Your task to perform on an android device: Go to Reddit.com Image 0: 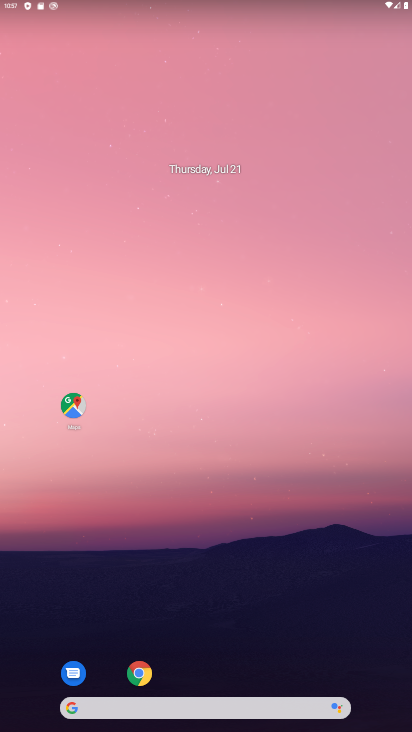
Step 0: drag from (336, 649) to (275, 122)
Your task to perform on an android device: Go to Reddit.com Image 1: 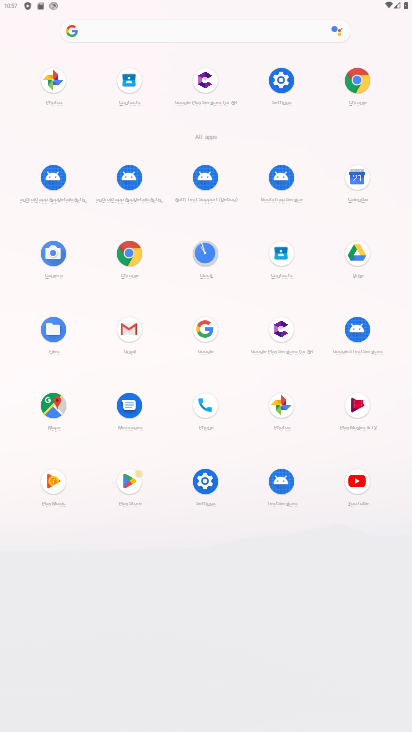
Step 1: click (359, 85)
Your task to perform on an android device: Go to Reddit.com Image 2: 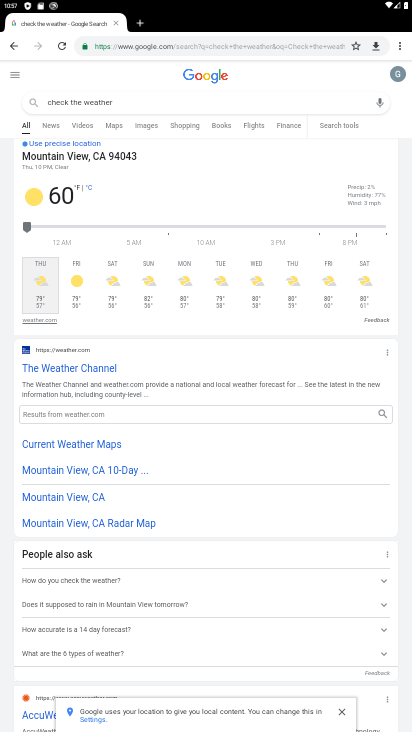
Step 2: click (281, 56)
Your task to perform on an android device: Go to Reddit.com Image 3: 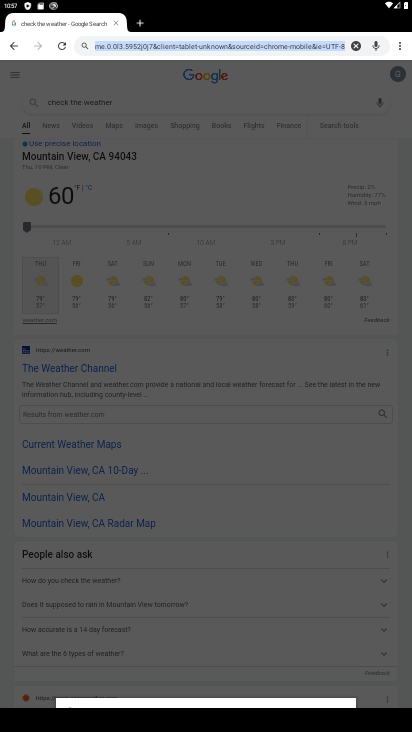
Step 3: type "Reddit.com"
Your task to perform on an android device: Go to Reddit.com Image 4: 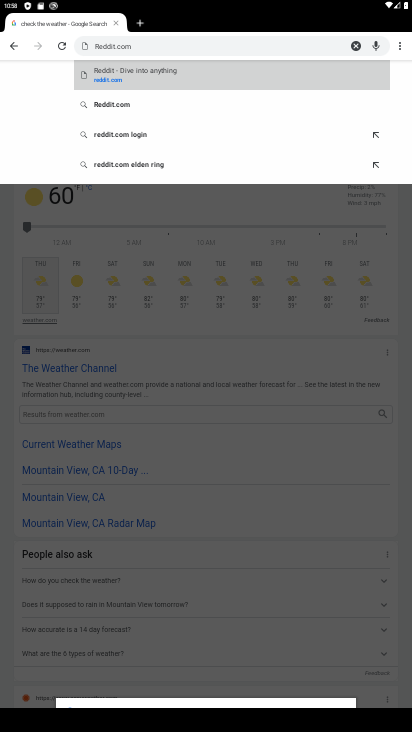
Step 4: click (128, 82)
Your task to perform on an android device: Go to Reddit.com Image 5: 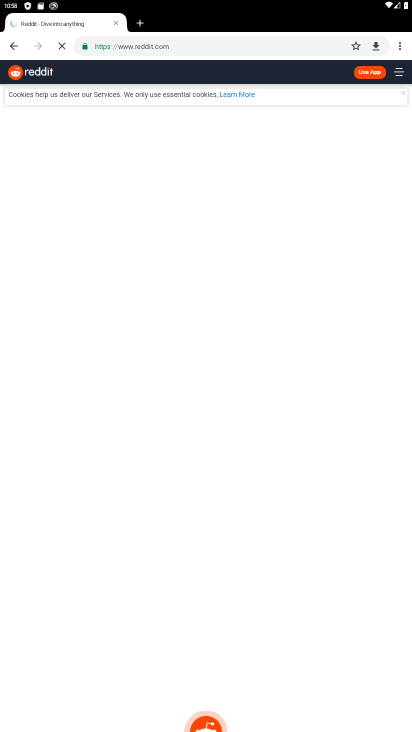
Step 5: task complete